Your task to perform on an android device: Search for a new 65" TV at Best Buy Image 0: 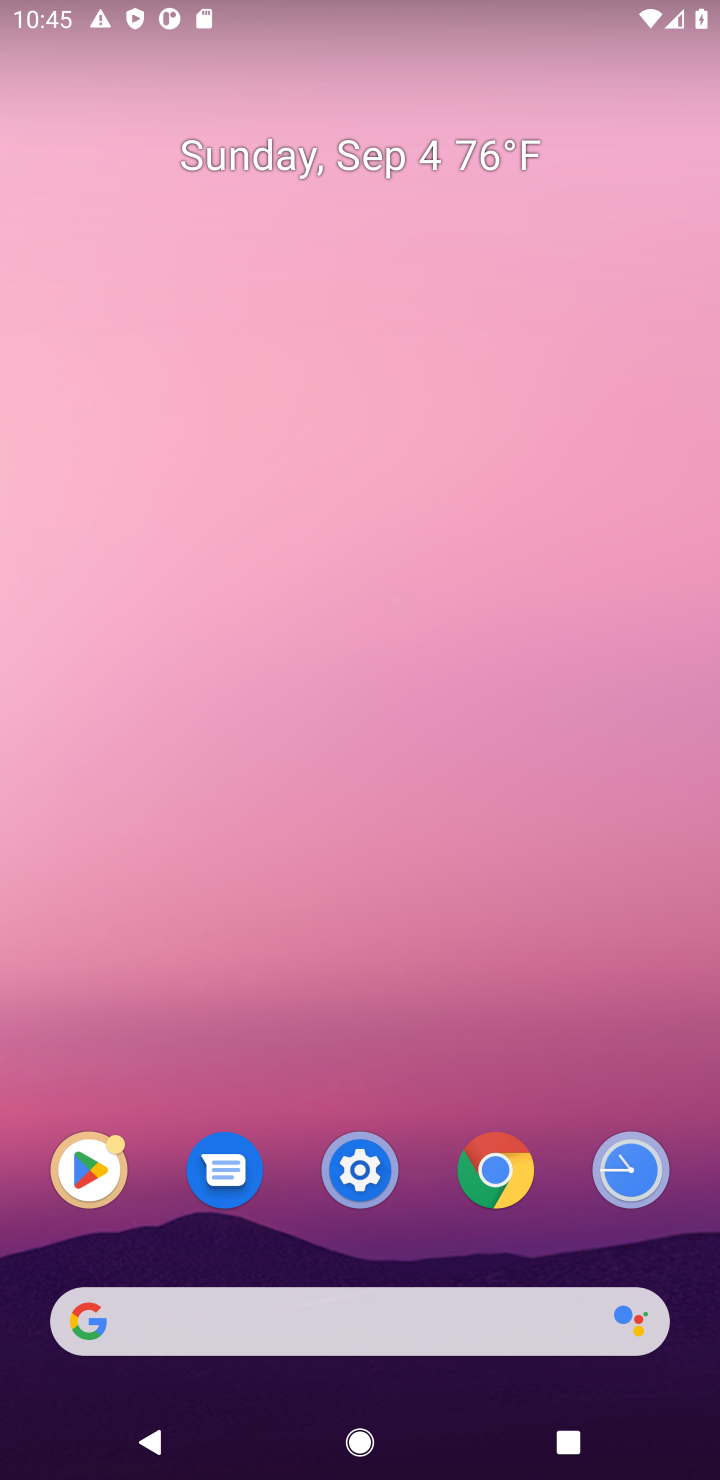
Step 0: click (361, 1306)
Your task to perform on an android device: Search for a new 65" TV at Best Buy Image 1: 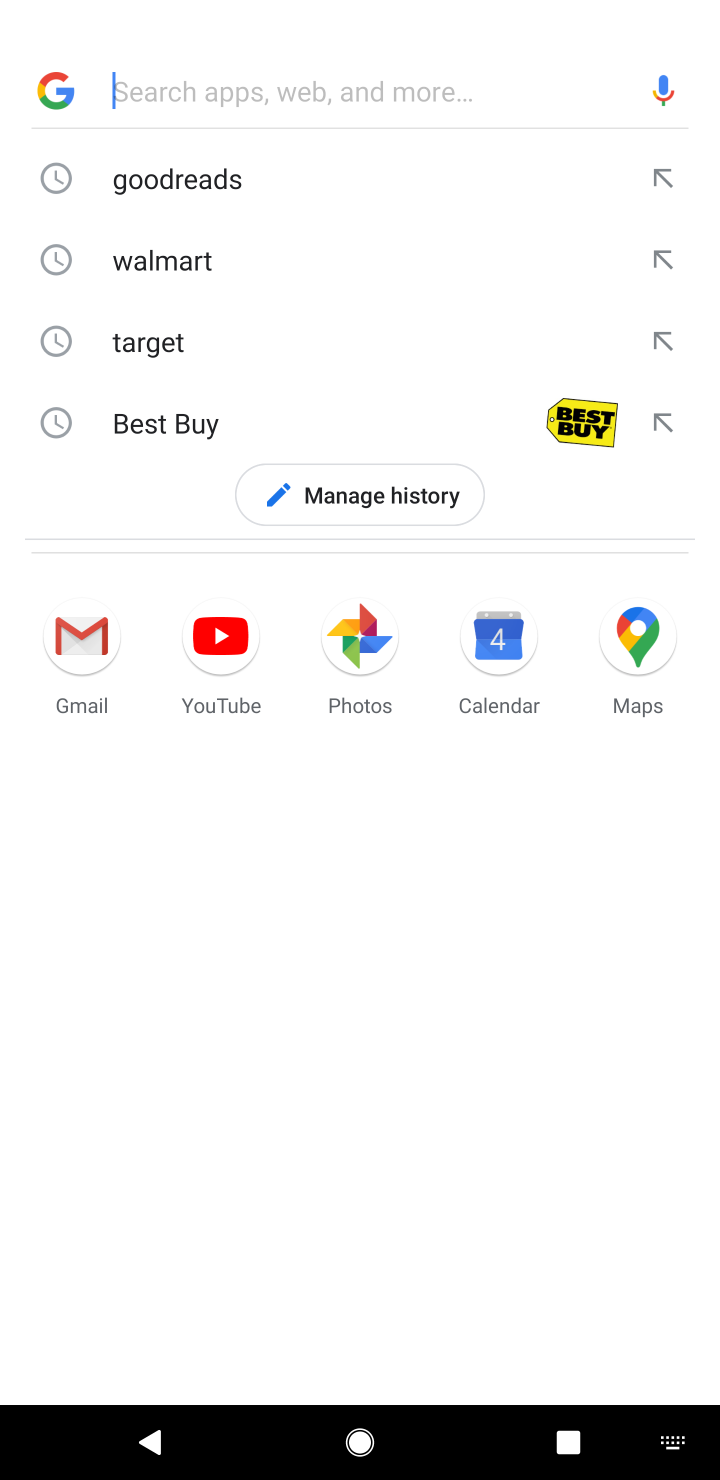
Step 1: click (259, 431)
Your task to perform on an android device: Search for a new 65" TV at Best Buy Image 2: 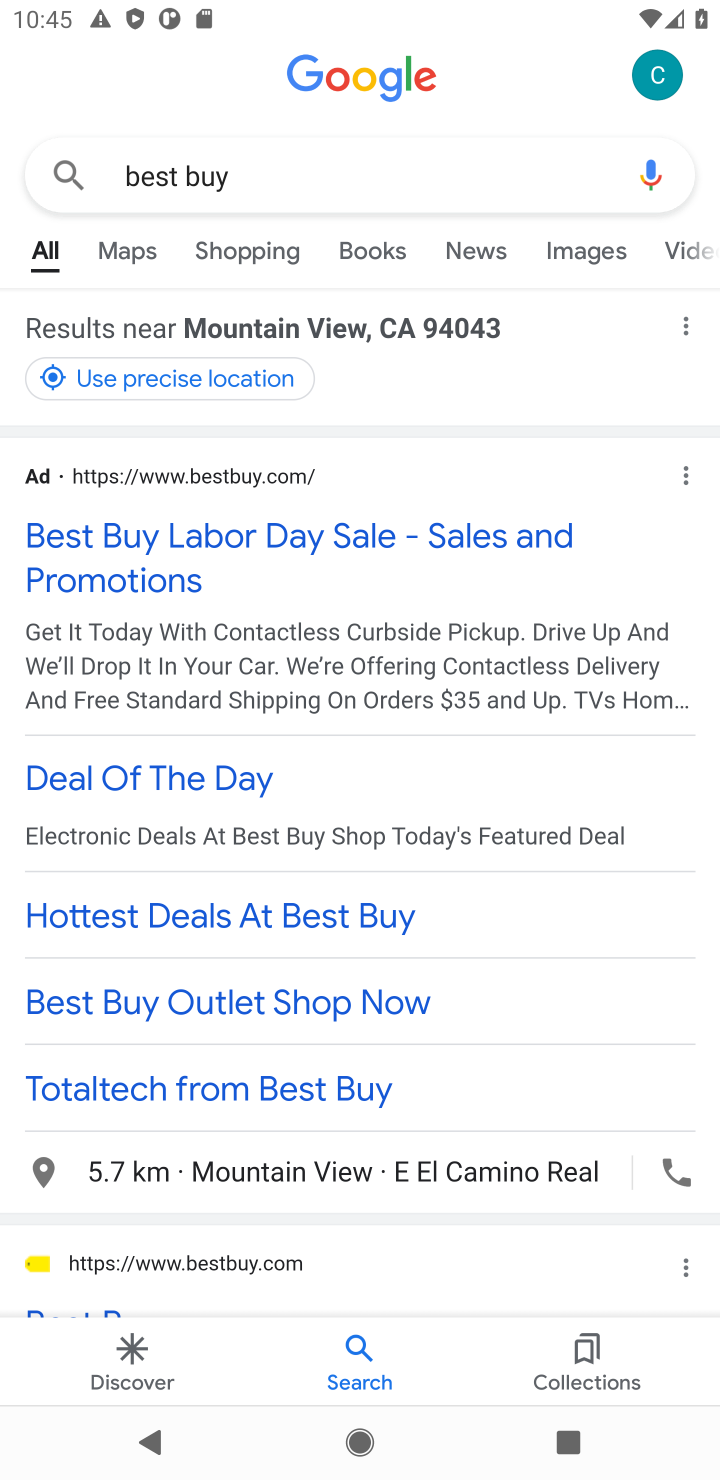
Step 2: drag from (284, 900) to (320, 383)
Your task to perform on an android device: Search for a new 65" TV at Best Buy Image 3: 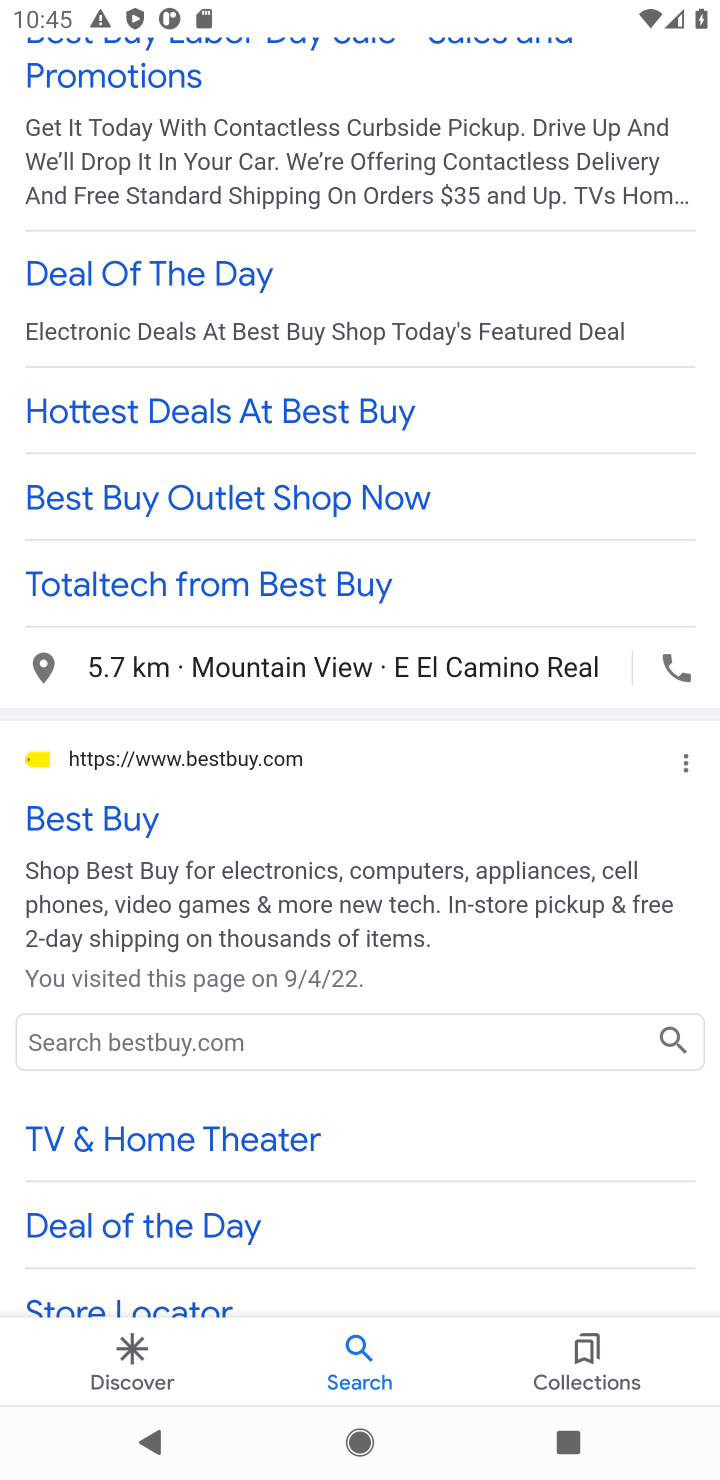
Step 3: click (153, 814)
Your task to perform on an android device: Search for a new 65" TV at Best Buy Image 4: 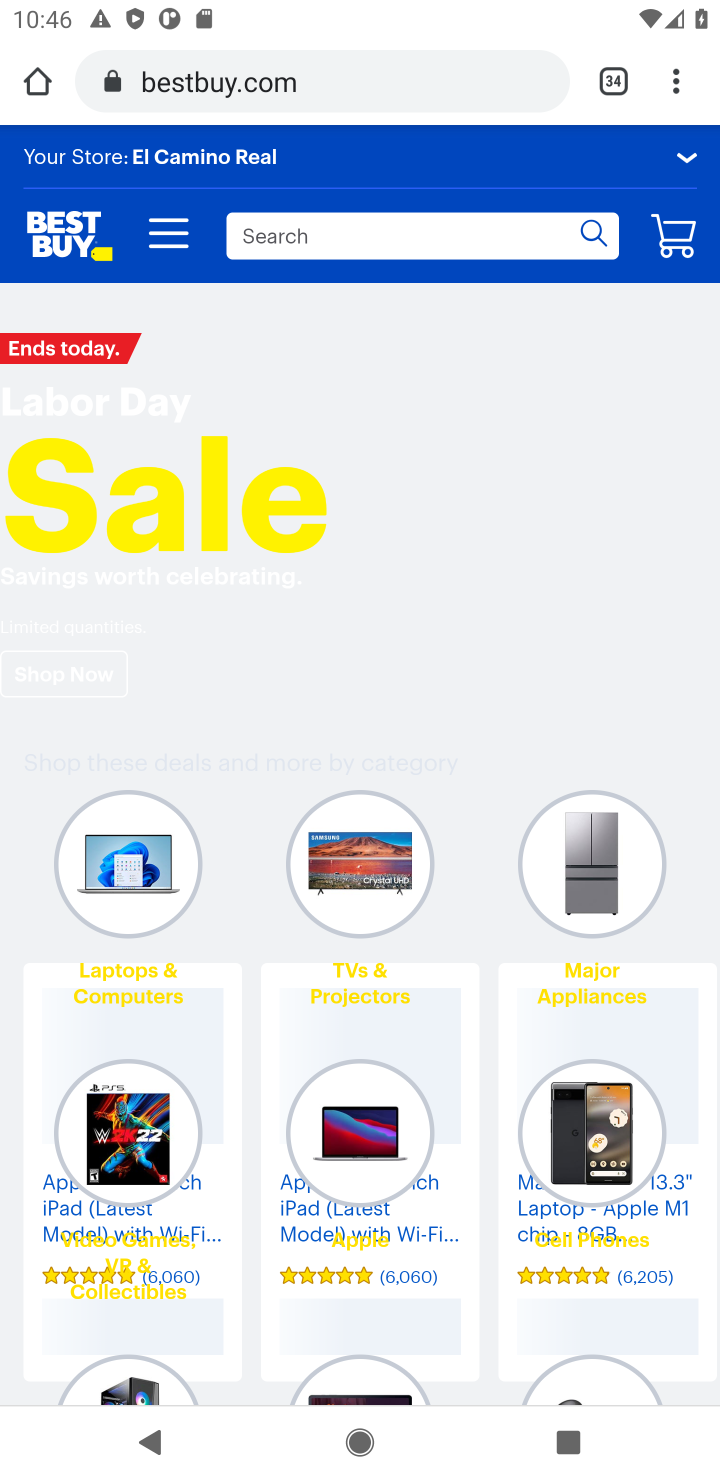
Step 4: click (345, 225)
Your task to perform on an android device: Search for a new 65" TV at Best Buy Image 5: 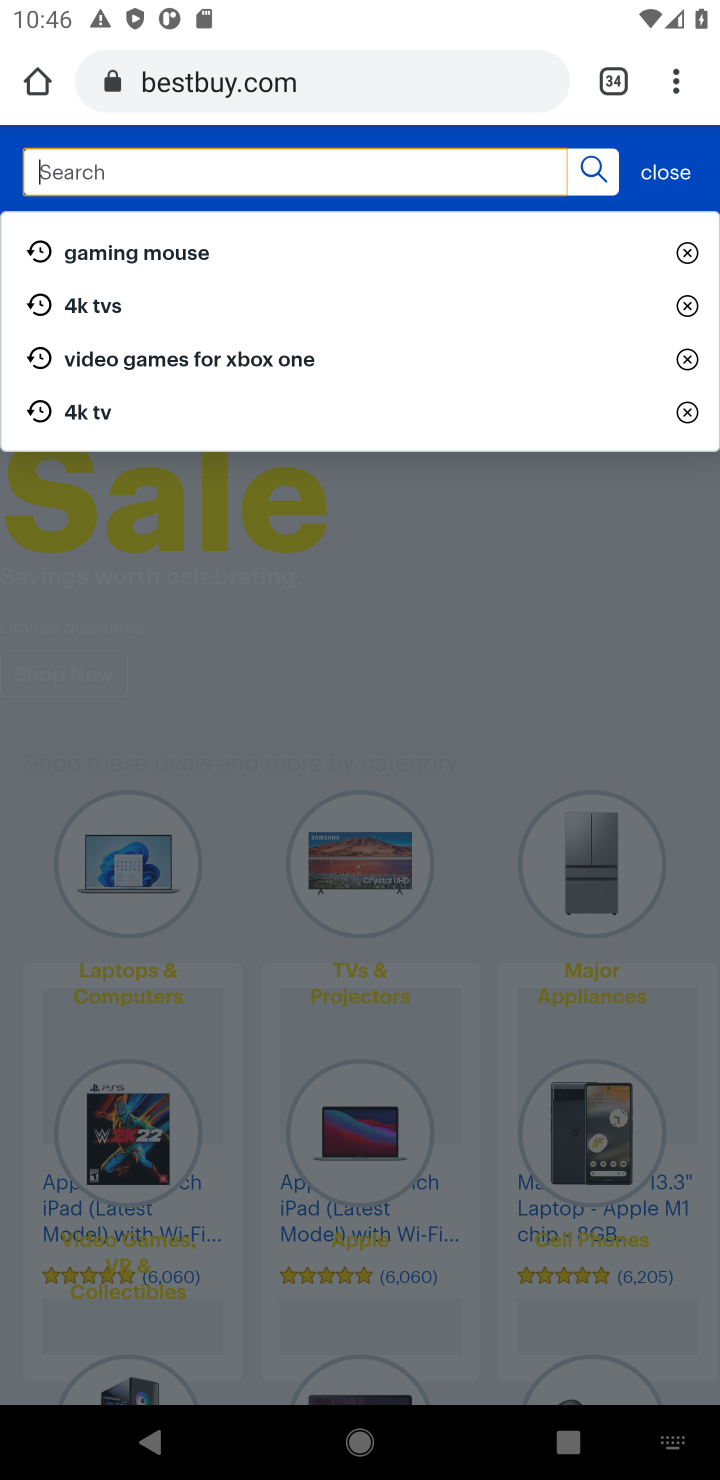
Step 5: type "new 65" TV"
Your task to perform on an android device: Search for a new 65" TV at Best Buy Image 6: 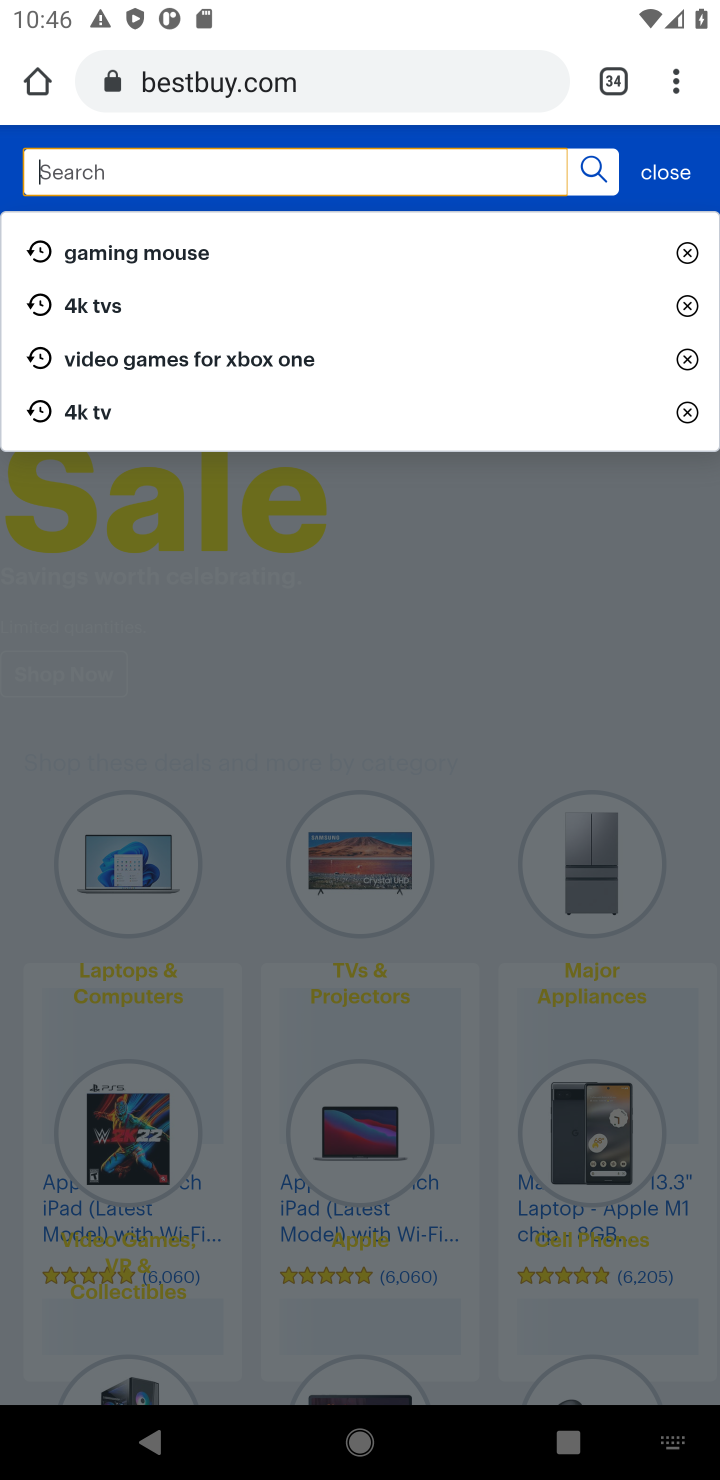
Step 6: click (167, 302)
Your task to perform on an android device: Search for a new 65" TV at Best Buy Image 7: 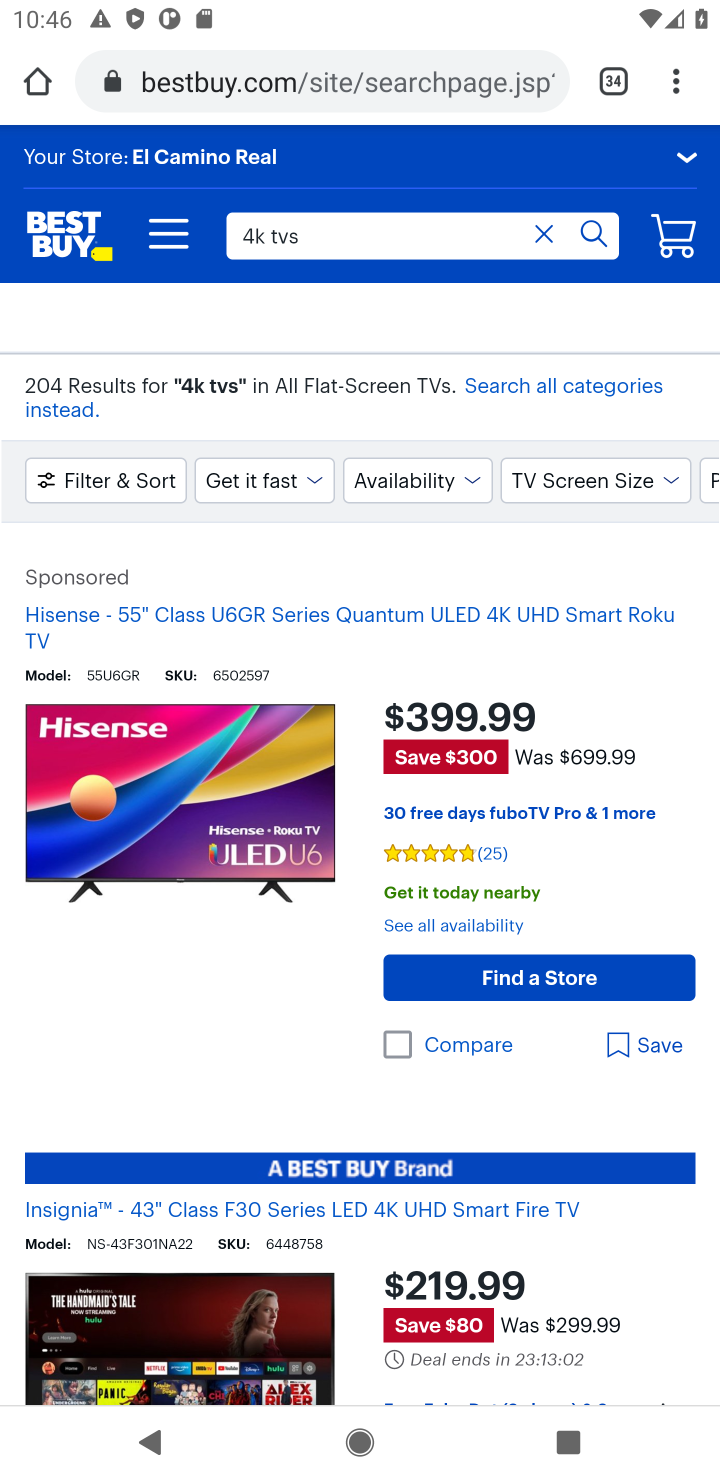
Step 7: task complete